Your task to perform on an android device: Open Chrome and go to settings Image 0: 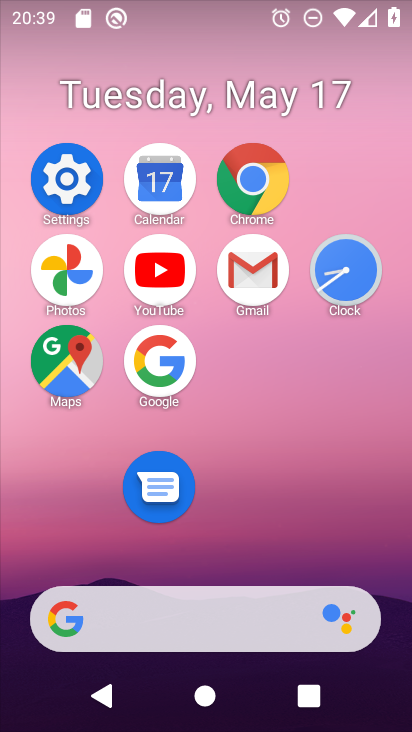
Step 0: click (277, 184)
Your task to perform on an android device: Open Chrome and go to settings Image 1: 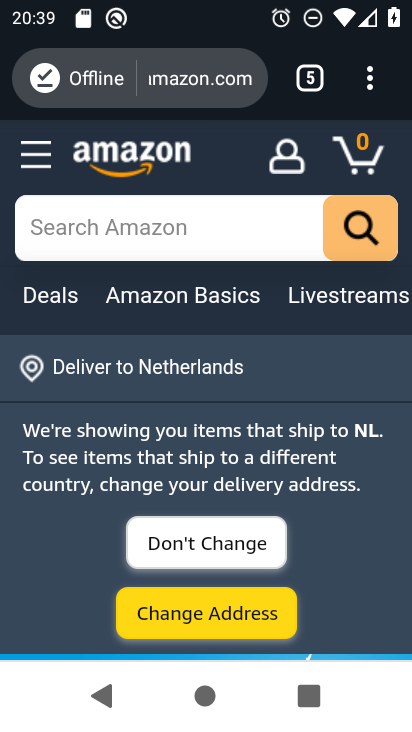
Step 1: click (365, 91)
Your task to perform on an android device: Open Chrome and go to settings Image 2: 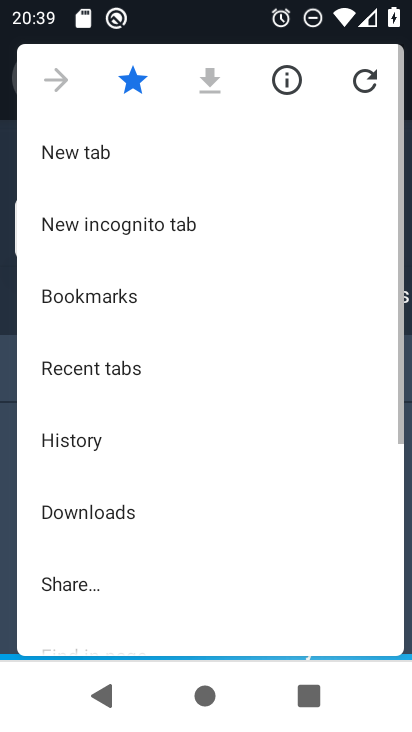
Step 2: drag from (225, 558) to (219, 179)
Your task to perform on an android device: Open Chrome and go to settings Image 3: 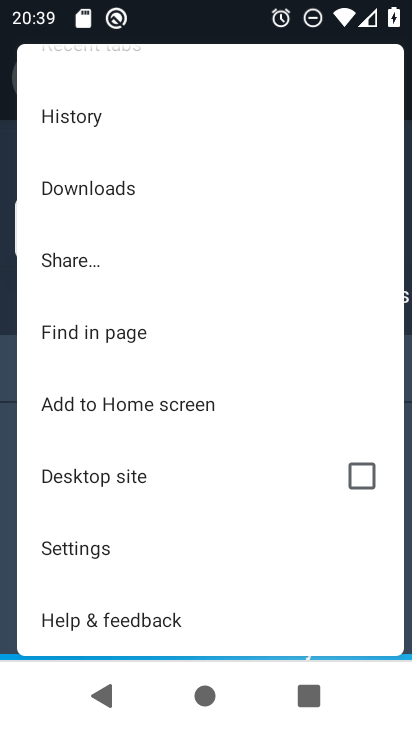
Step 3: click (114, 545)
Your task to perform on an android device: Open Chrome and go to settings Image 4: 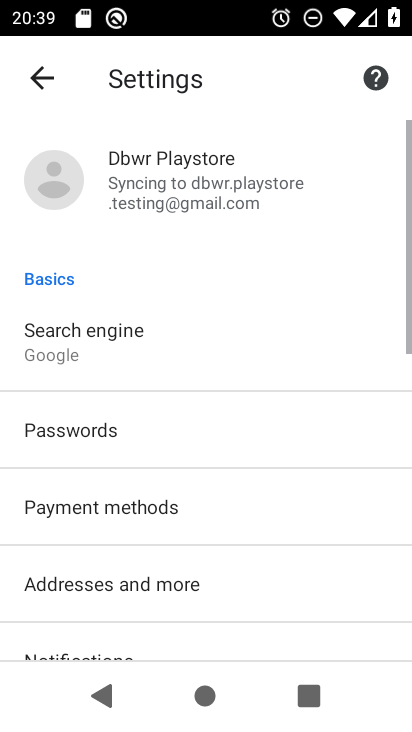
Step 4: task complete